Your task to perform on an android device: Open battery settings Image 0: 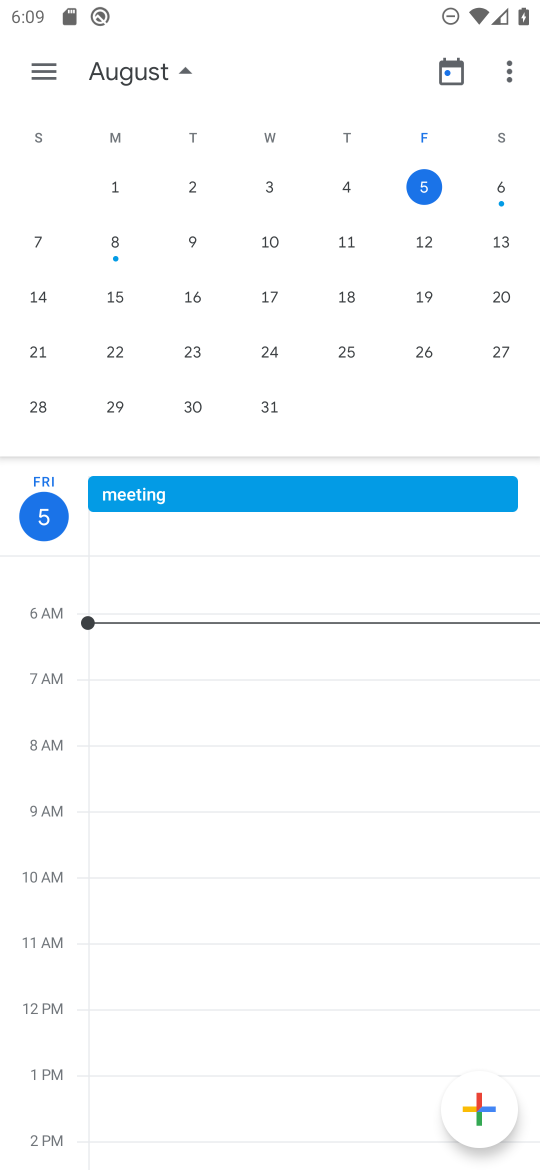
Step 0: press home button
Your task to perform on an android device: Open battery settings Image 1: 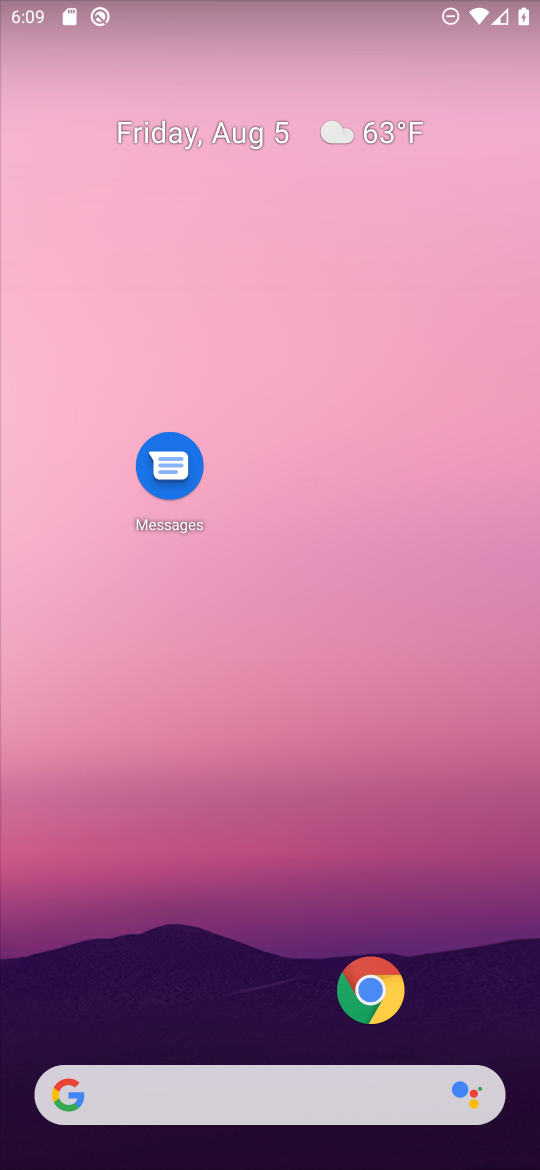
Step 1: drag from (246, 985) to (189, 536)
Your task to perform on an android device: Open battery settings Image 2: 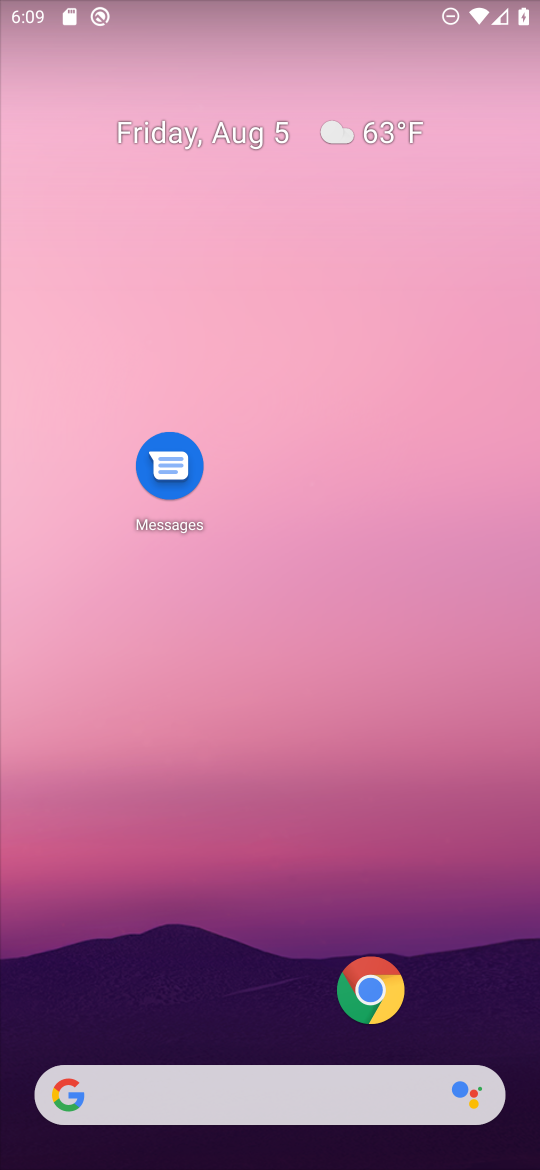
Step 2: drag from (215, 1059) to (93, 316)
Your task to perform on an android device: Open battery settings Image 3: 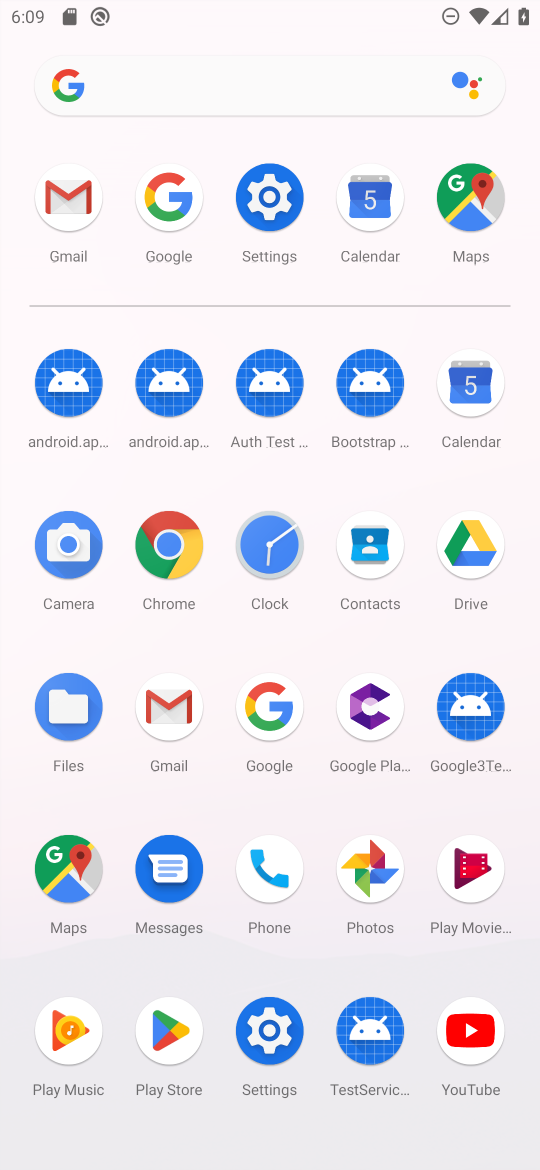
Step 3: click (275, 209)
Your task to perform on an android device: Open battery settings Image 4: 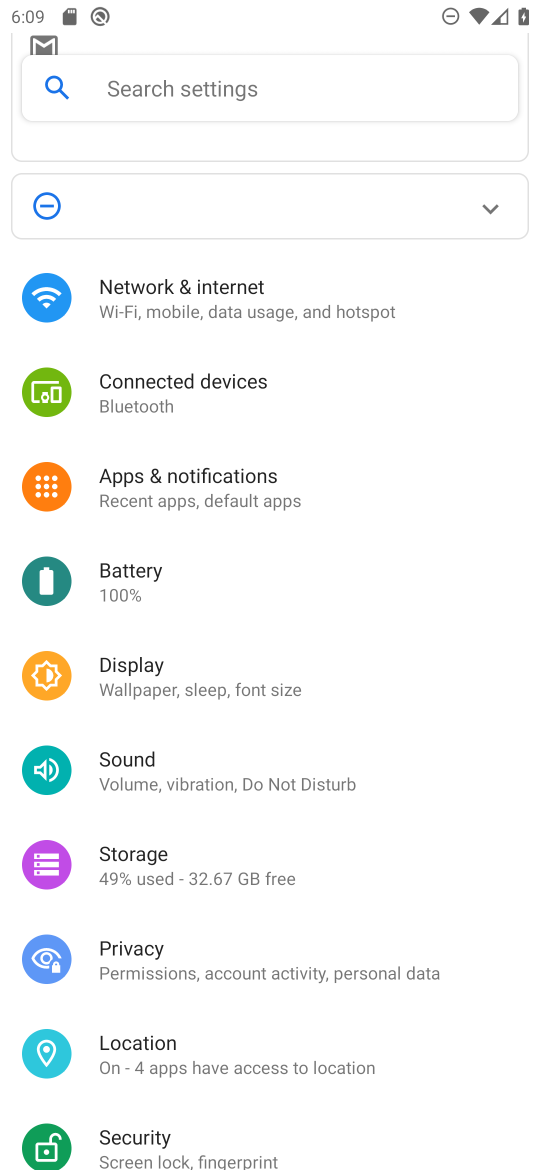
Step 4: click (159, 577)
Your task to perform on an android device: Open battery settings Image 5: 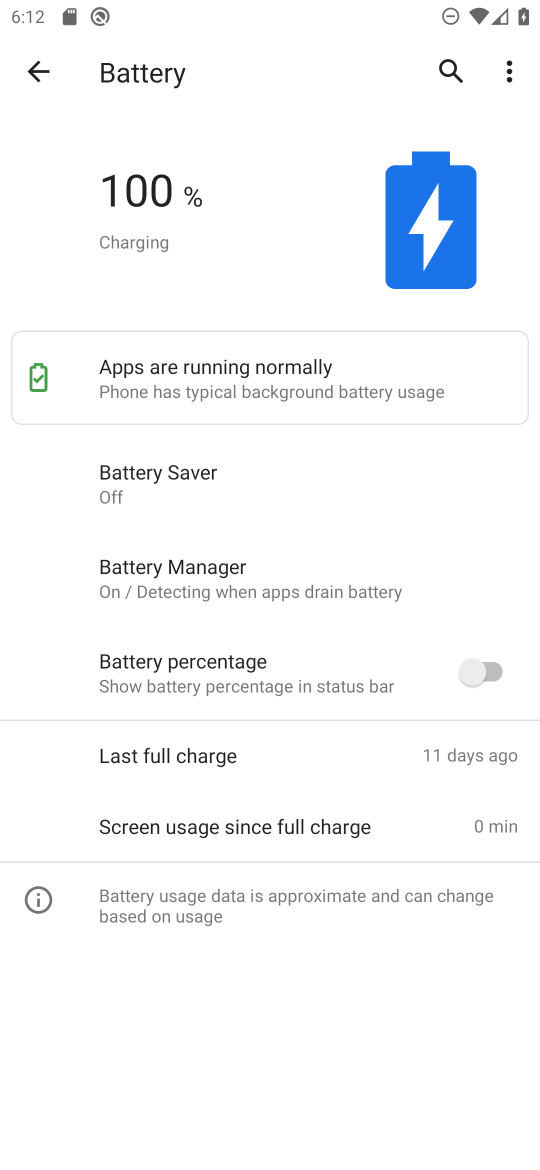
Step 5: task complete